Your task to perform on an android device: Add logitech g933 to the cart on costco.com, then select checkout. Image 0: 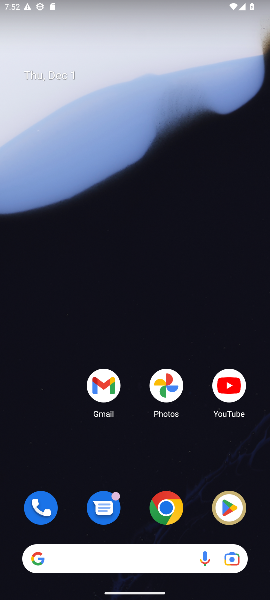
Step 0: click (164, 515)
Your task to perform on an android device: Add logitech g933 to the cart on costco.com, then select checkout. Image 1: 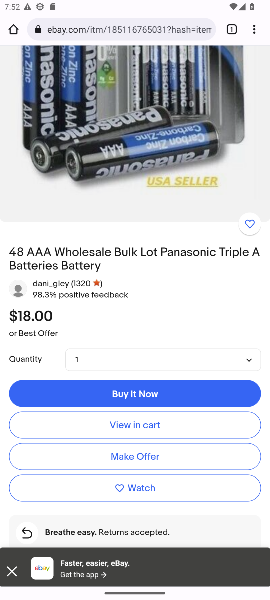
Step 1: click (233, 32)
Your task to perform on an android device: Add logitech g933 to the cart on costco.com, then select checkout. Image 2: 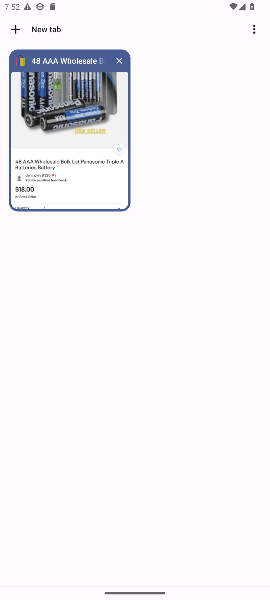
Step 2: click (23, 34)
Your task to perform on an android device: Add logitech g933 to the cart on costco.com, then select checkout. Image 3: 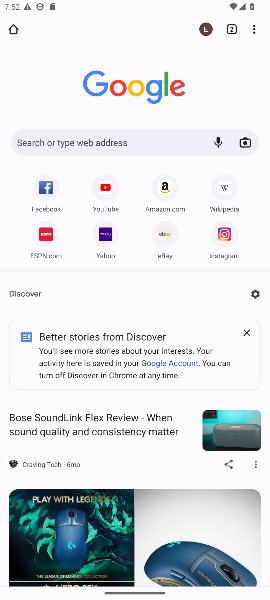
Step 3: click (67, 149)
Your task to perform on an android device: Add logitech g933 to the cart on costco.com, then select checkout. Image 4: 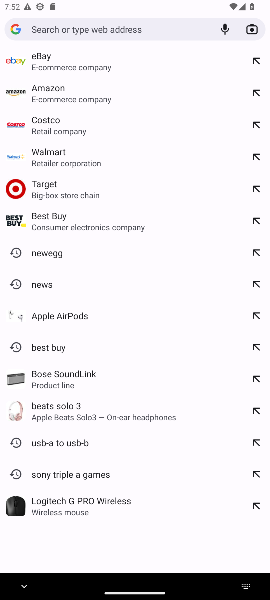
Step 4: click (49, 123)
Your task to perform on an android device: Add logitech g933 to the cart on costco.com, then select checkout. Image 5: 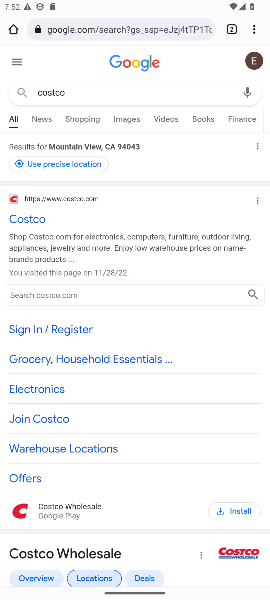
Step 5: click (30, 217)
Your task to perform on an android device: Add logitech g933 to the cart on costco.com, then select checkout. Image 6: 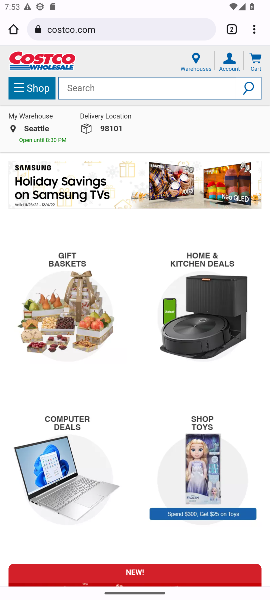
Step 6: click (87, 93)
Your task to perform on an android device: Add logitech g933 to the cart on costco.com, then select checkout. Image 7: 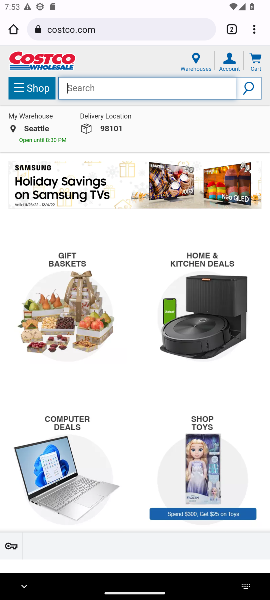
Step 7: type "logitech g933"
Your task to perform on an android device: Add logitech g933 to the cart on costco.com, then select checkout. Image 8: 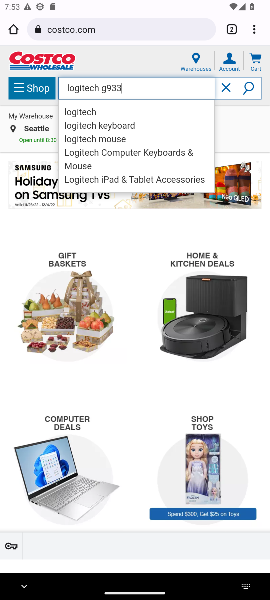
Step 8: click (247, 88)
Your task to perform on an android device: Add logitech g933 to the cart on costco.com, then select checkout. Image 9: 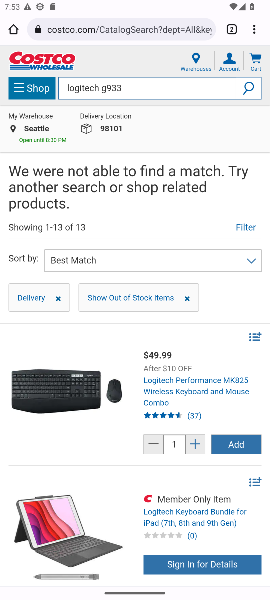
Step 9: drag from (97, 532) to (98, 428)
Your task to perform on an android device: Add logitech g933 to the cart on costco.com, then select checkout. Image 10: 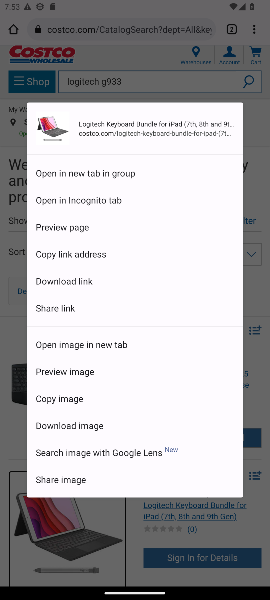
Step 10: click (255, 419)
Your task to perform on an android device: Add logitech g933 to the cart on costco.com, then select checkout. Image 11: 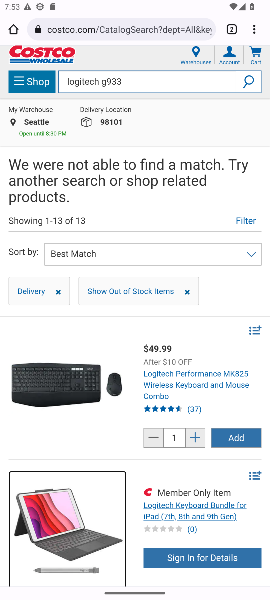
Step 11: task complete